Your task to perform on an android device: Is it going to rain tomorrow? Image 0: 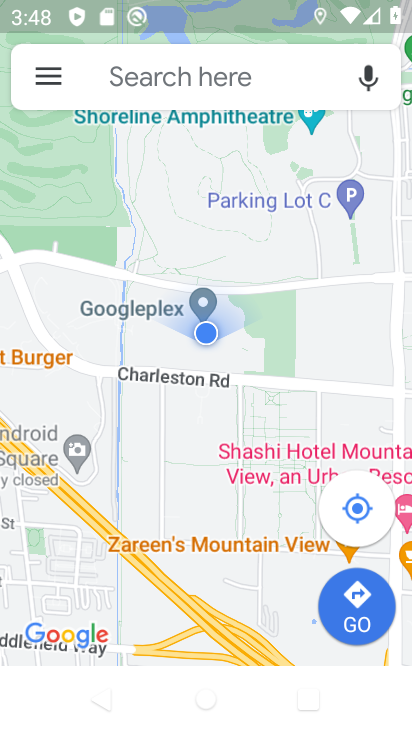
Step 0: press home button
Your task to perform on an android device: Is it going to rain tomorrow? Image 1: 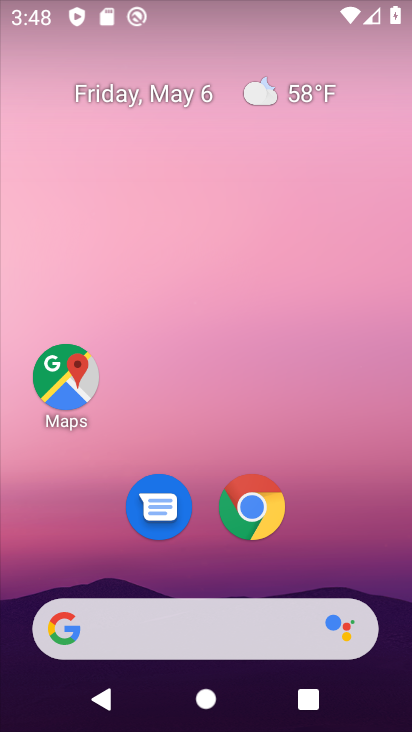
Step 1: click (270, 524)
Your task to perform on an android device: Is it going to rain tomorrow? Image 2: 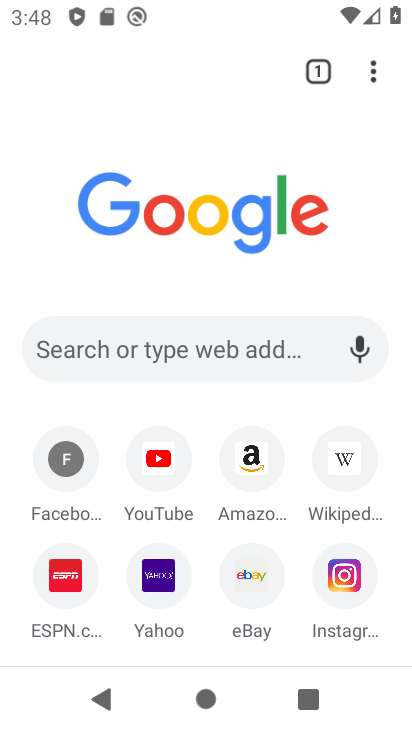
Step 2: click (230, 371)
Your task to perform on an android device: Is it going to rain tomorrow? Image 3: 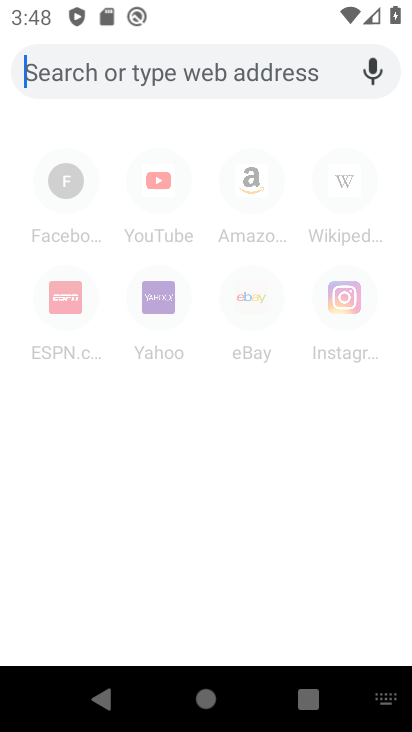
Step 3: type "Is it going to rain tomorrow?"
Your task to perform on an android device: Is it going to rain tomorrow? Image 4: 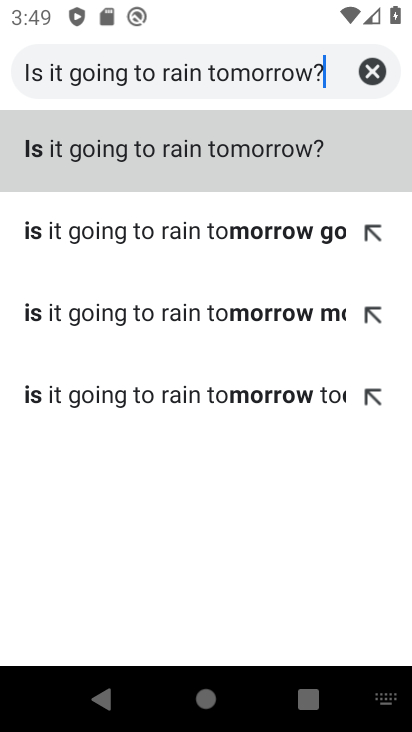
Step 4: click (79, 152)
Your task to perform on an android device: Is it going to rain tomorrow? Image 5: 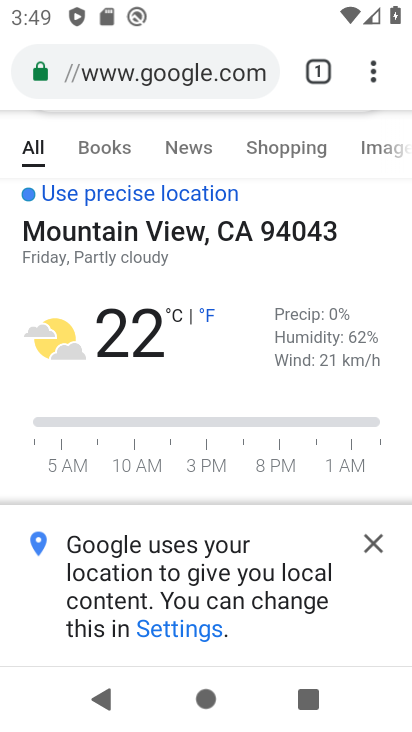
Step 5: click (377, 547)
Your task to perform on an android device: Is it going to rain tomorrow? Image 6: 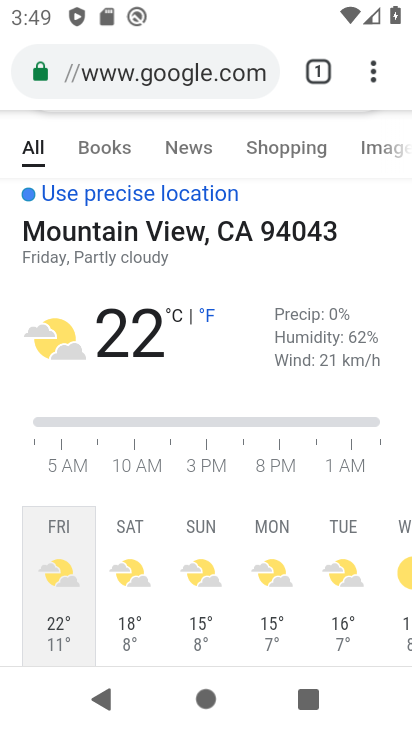
Step 6: drag from (334, 582) to (317, 233)
Your task to perform on an android device: Is it going to rain tomorrow? Image 7: 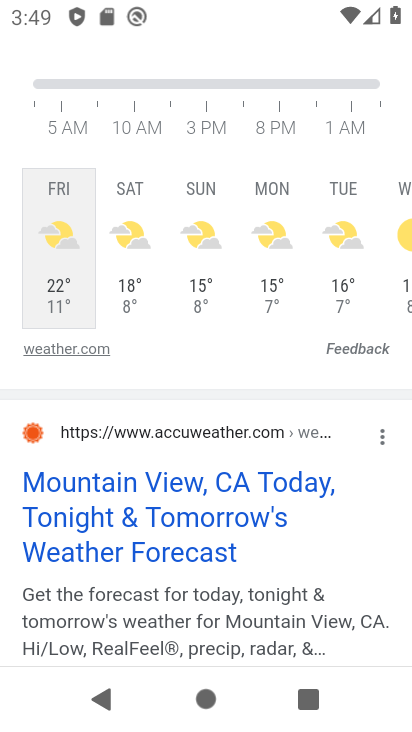
Step 7: click (136, 197)
Your task to perform on an android device: Is it going to rain tomorrow? Image 8: 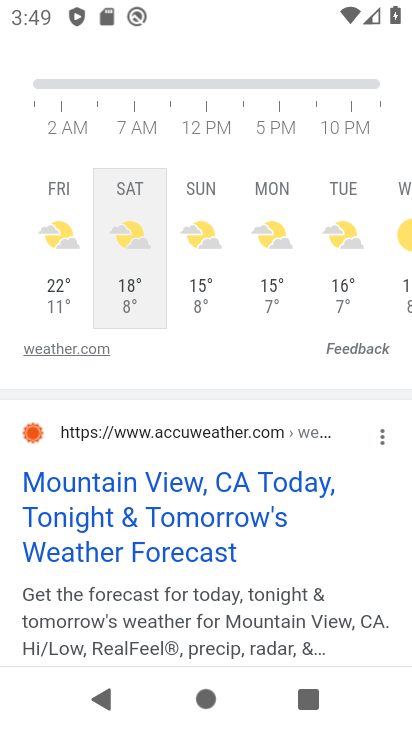
Step 8: task complete